Your task to perform on an android device: When is my next appointment? Image 0: 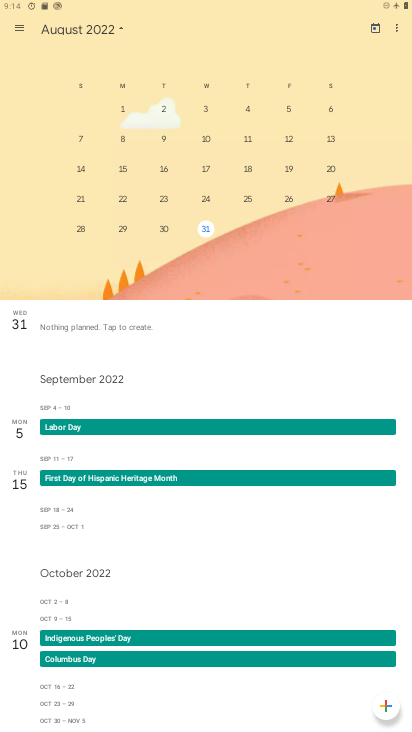
Step 0: press home button
Your task to perform on an android device: When is my next appointment? Image 1: 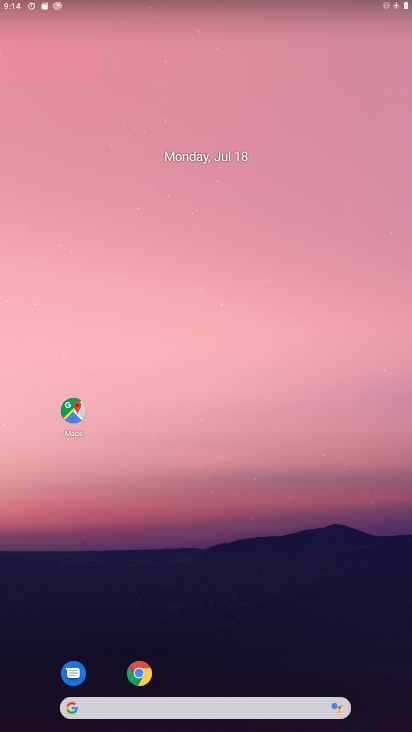
Step 1: drag from (234, 662) to (214, 39)
Your task to perform on an android device: When is my next appointment? Image 2: 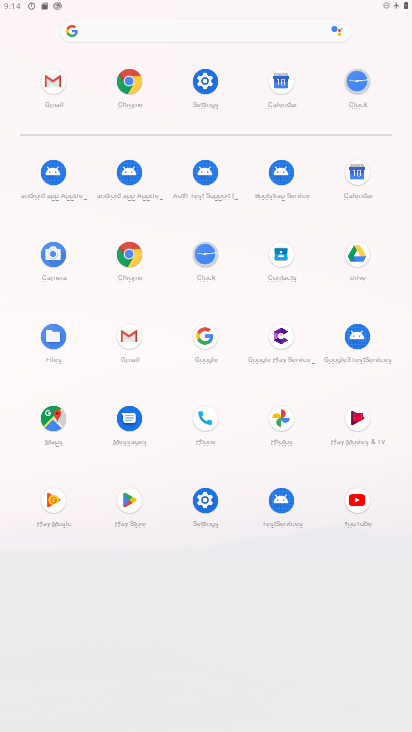
Step 2: click (362, 163)
Your task to perform on an android device: When is my next appointment? Image 3: 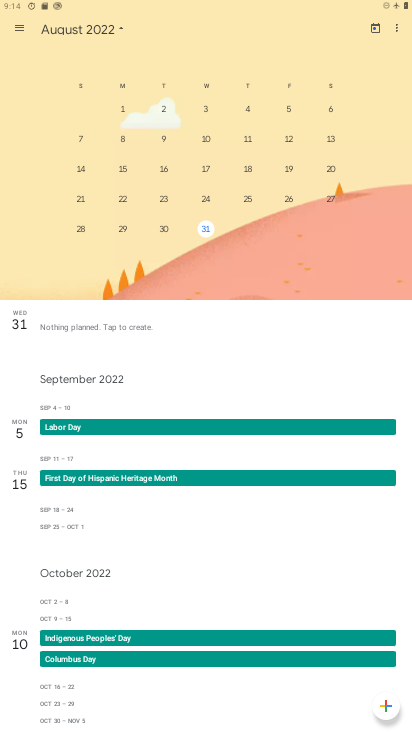
Step 3: click (20, 37)
Your task to perform on an android device: When is my next appointment? Image 4: 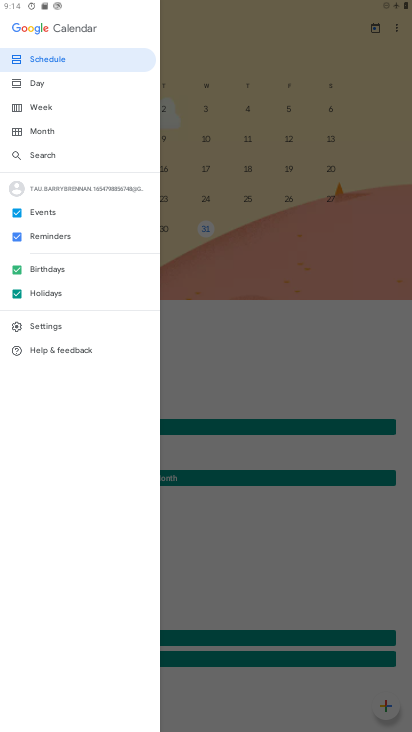
Step 4: click (32, 65)
Your task to perform on an android device: When is my next appointment? Image 5: 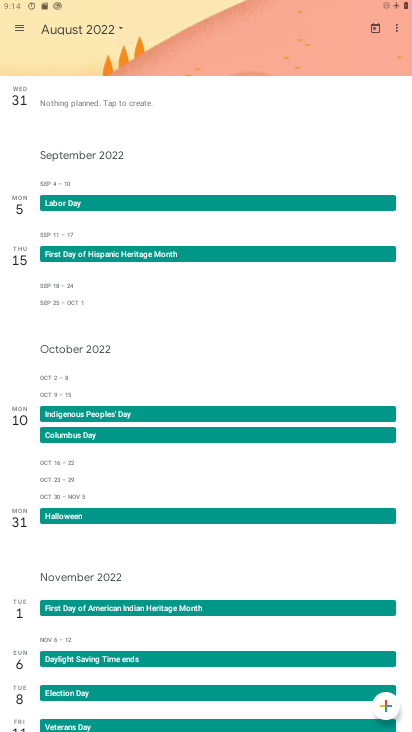
Step 5: task complete